Your task to perform on an android device: Open accessibility settings Image 0: 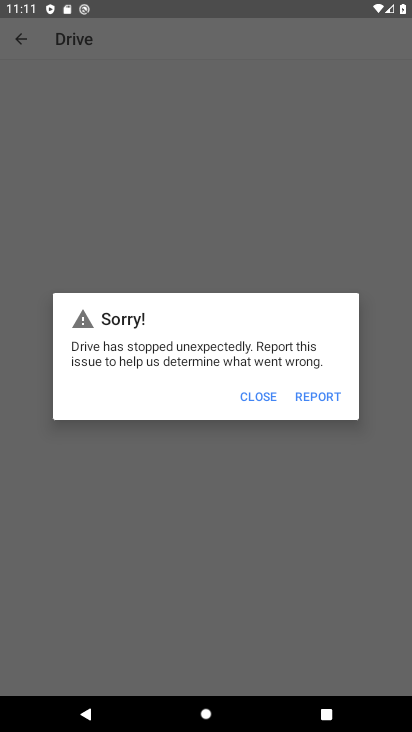
Step 0: press home button
Your task to perform on an android device: Open accessibility settings Image 1: 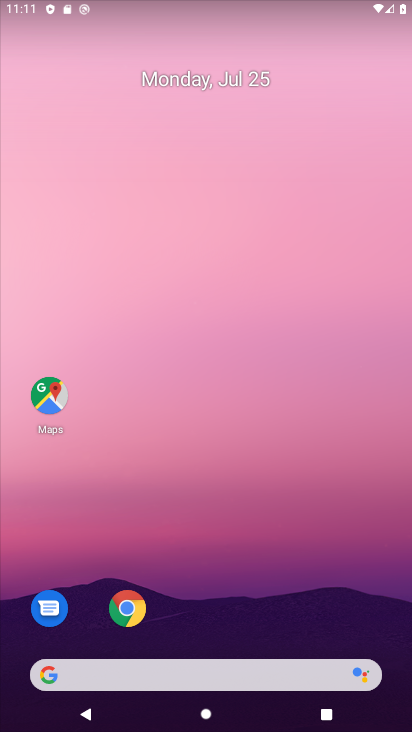
Step 1: drag from (202, 663) to (93, 15)
Your task to perform on an android device: Open accessibility settings Image 2: 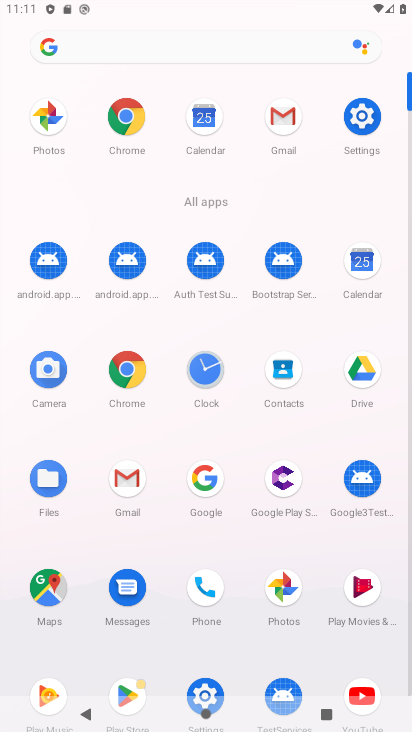
Step 2: click (362, 121)
Your task to perform on an android device: Open accessibility settings Image 3: 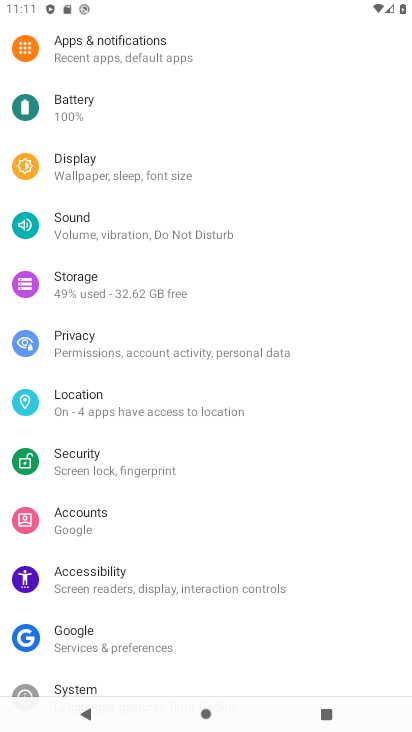
Step 3: click (153, 591)
Your task to perform on an android device: Open accessibility settings Image 4: 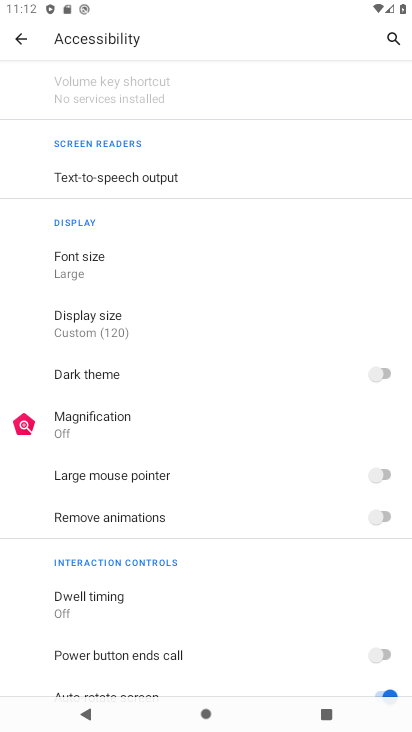
Step 4: task complete